Your task to perform on an android device: Check the news Image 0: 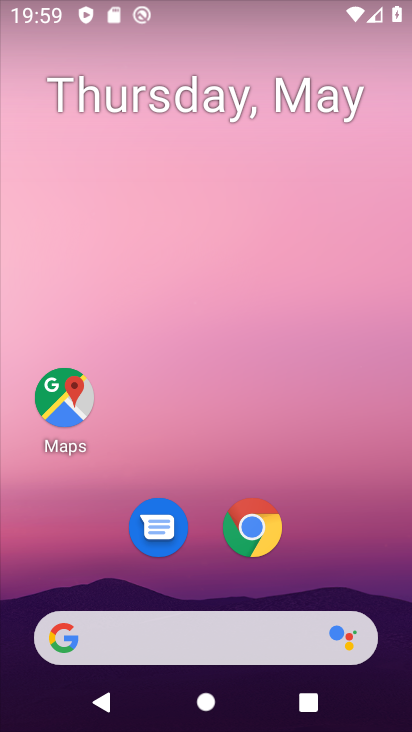
Step 0: drag from (326, 556) to (229, 110)
Your task to perform on an android device: Check the news Image 1: 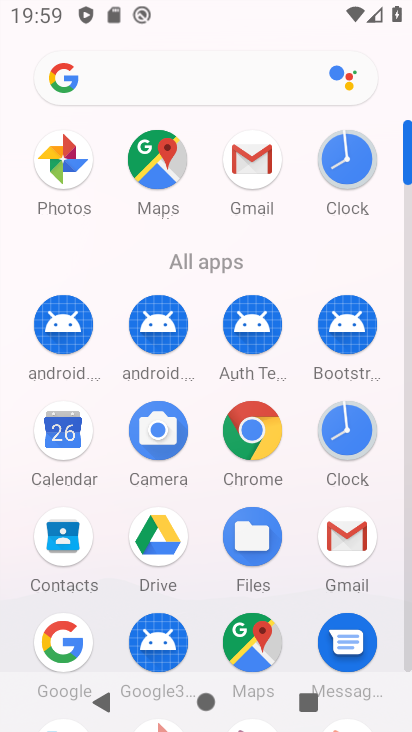
Step 1: click (59, 639)
Your task to perform on an android device: Check the news Image 2: 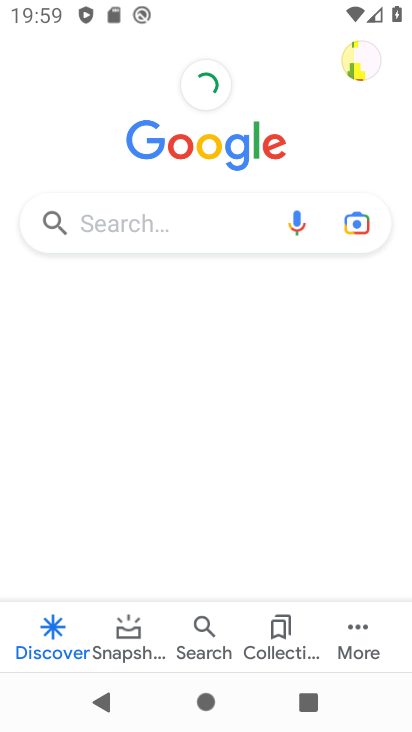
Step 2: click (172, 239)
Your task to perform on an android device: Check the news Image 3: 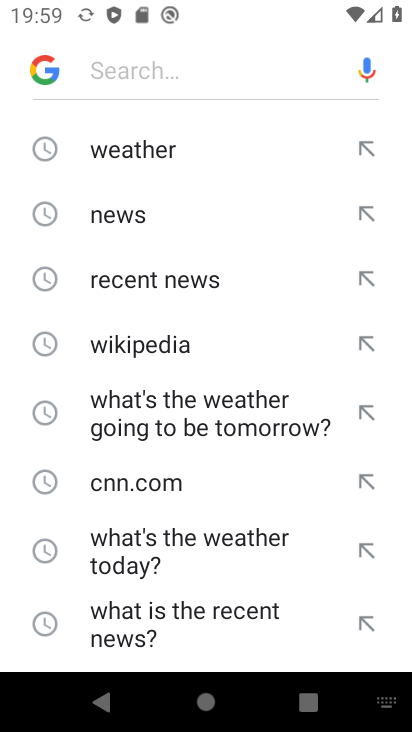
Step 3: type "news"
Your task to perform on an android device: Check the news Image 4: 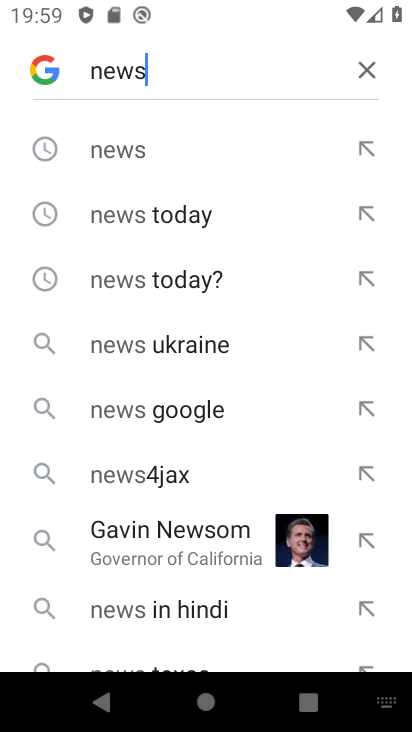
Step 4: click (125, 153)
Your task to perform on an android device: Check the news Image 5: 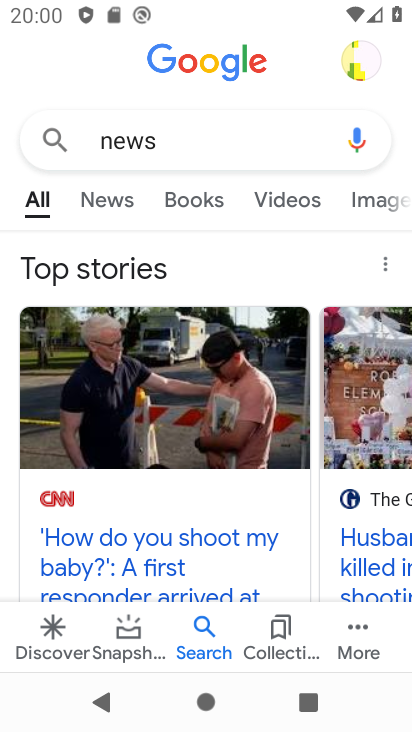
Step 5: task complete